Your task to perform on an android device: clear history in the chrome app Image 0: 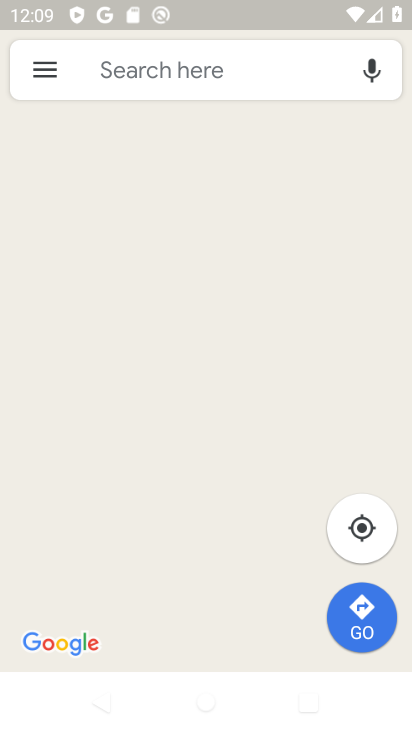
Step 0: drag from (232, 588) to (155, 87)
Your task to perform on an android device: clear history in the chrome app Image 1: 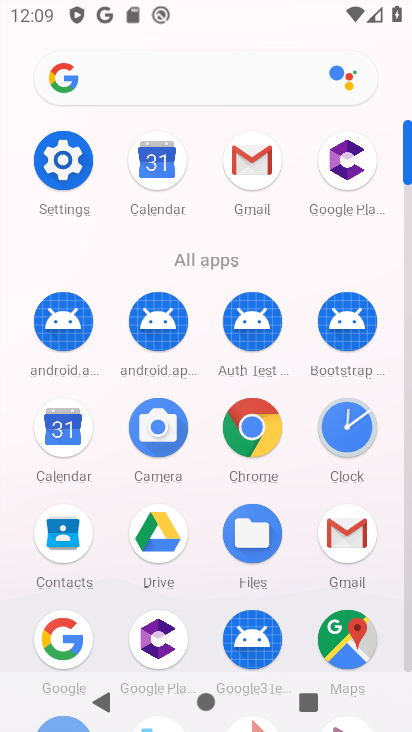
Step 1: click (266, 403)
Your task to perform on an android device: clear history in the chrome app Image 2: 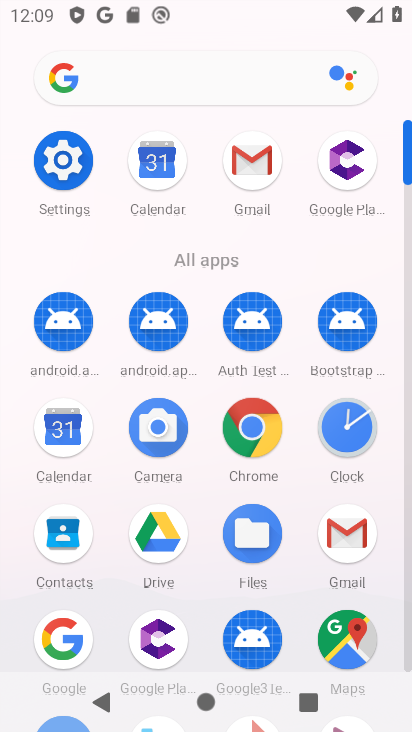
Step 2: click (258, 423)
Your task to perform on an android device: clear history in the chrome app Image 3: 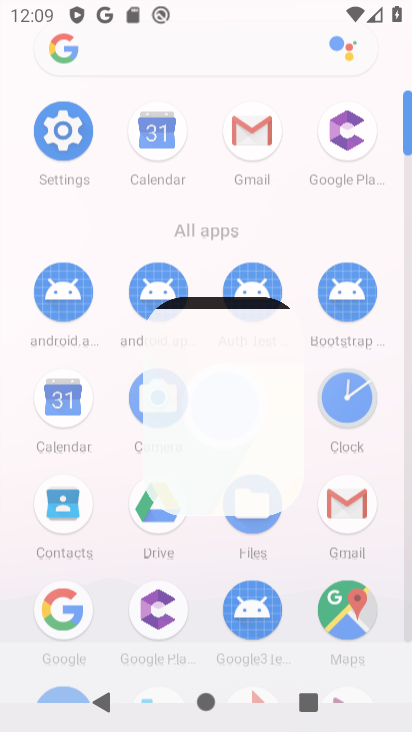
Step 3: click (258, 423)
Your task to perform on an android device: clear history in the chrome app Image 4: 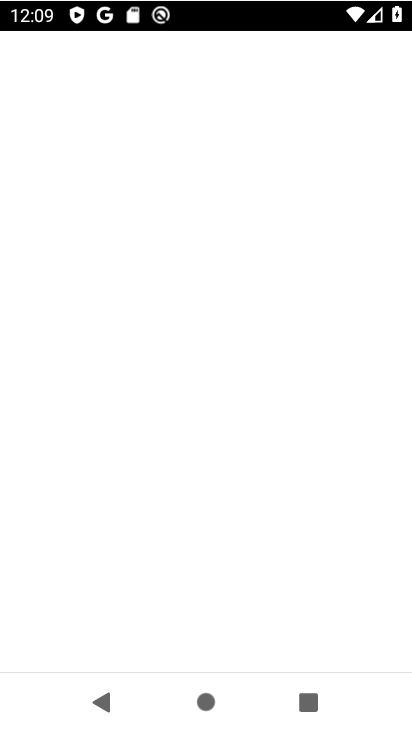
Step 4: click (258, 423)
Your task to perform on an android device: clear history in the chrome app Image 5: 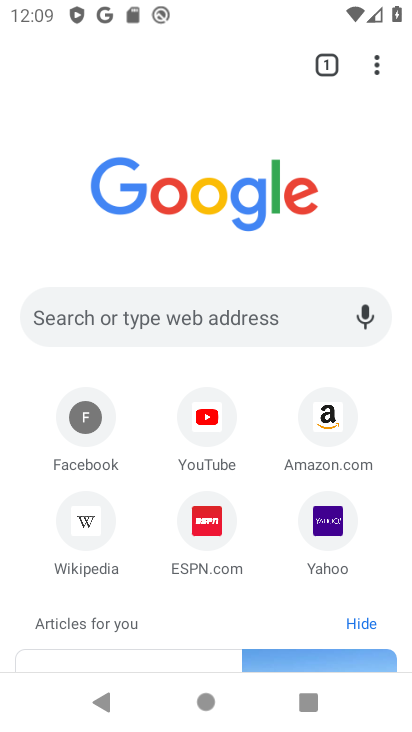
Step 5: drag from (375, 58) to (148, 368)
Your task to perform on an android device: clear history in the chrome app Image 6: 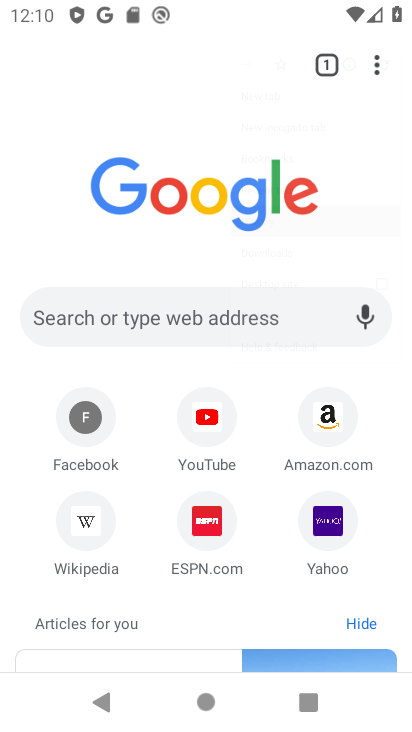
Step 6: click (149, 367)
Your task to perform on an android device: clear history in the chrome app Image 7: 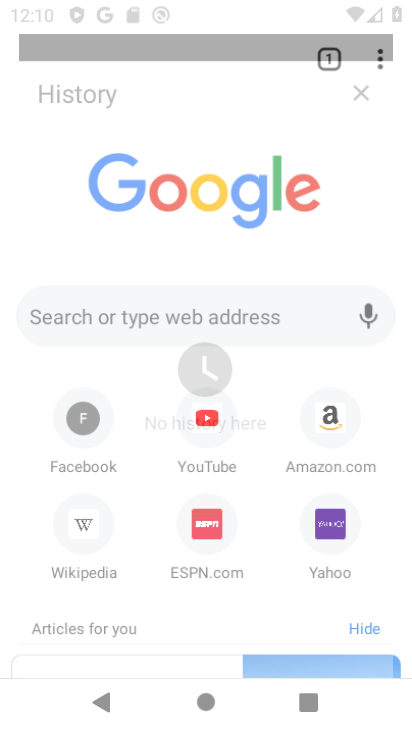
Step 7: click (149, 366)
Your task to perform on an android device: clear history in the chrome app Image 8: 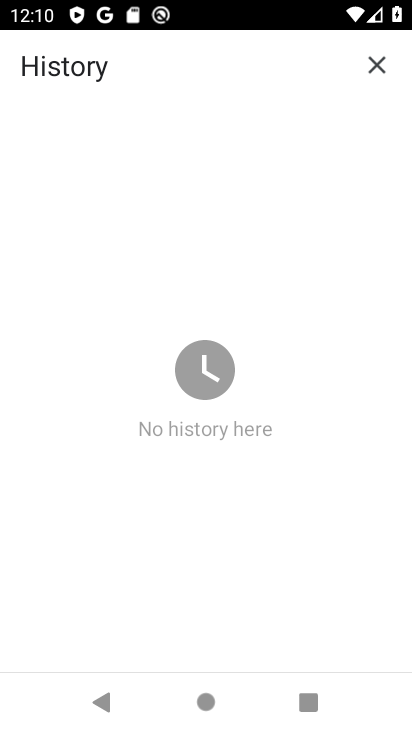
Step 8: task complete